Your task to perform on an android device: open app "Airtel Thanks" (install if not already installed) and enter user name: "acclaimed@inbox.com" and password: "dichotomize" Image 0: 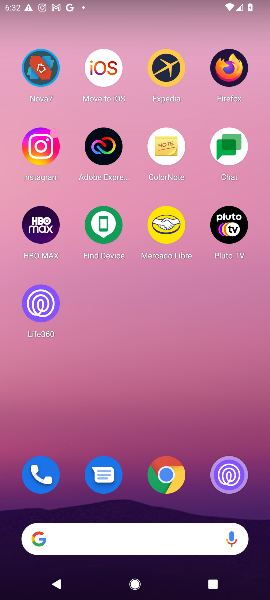
Step 0: drag from (138, 526) to (175, 135)
Your task to perform on an android device: open app "Airtel Thanks" (install if not already installed) and enter user name: "acclaimed@inbox.com" and password: "dichotomize" Image 1: 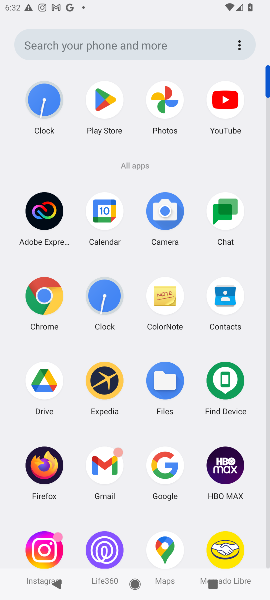
Step 1: click (107, 97)
Your task to perform on an android device: open app "Airtel Thanks" (install if not already installed) and enter user name: "acclaimed@inbox.com" and password: "dichotomize" Image 2: 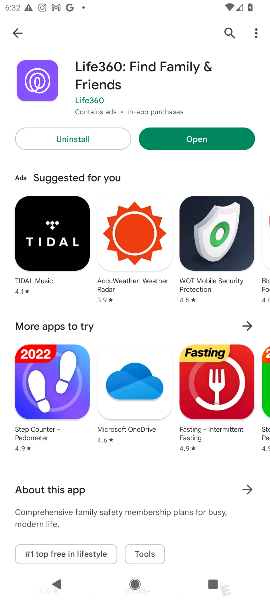
Step 2: click (15, 34)
Your task to perform on an android device: open app "Airtel Thanks" (install if not already installed) and enter user name: "acclaimed@inbox.com" and password: "dichotomize" Image 3: 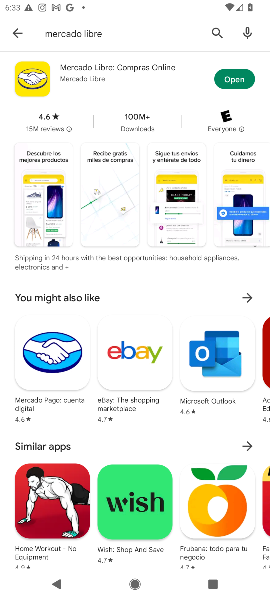
Step 3: click (219, 32)
Your task to perform on an android device: open app "Airtel Thanks" (install if not already installed) and enter user name: "acclaimed@inbox.com" and password: "dichotomize" Image 4: 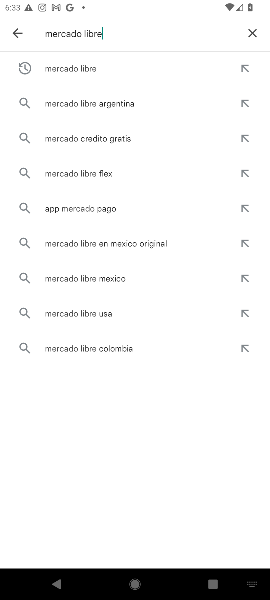
Step 4: click (253, 33)
Your task to perform on an android device: open app "Airtel Thanks" (install if not already installed) and enter user name: "acclaimed@inbox.com" and password: "dichotomize" Image 5: 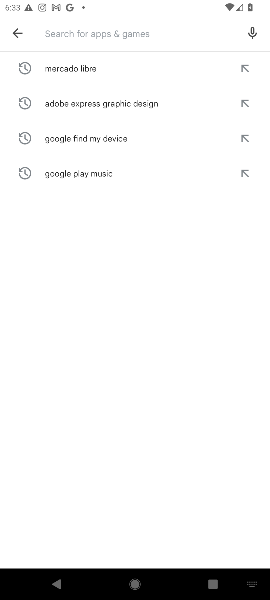
Step 5: click (118, 36)
Your task to perform on an android device: open app "Airtel Thanks" (install if not already installed) and enter user name: "acclaimed@inbox.com" and password: "dichotomize" Image 6: 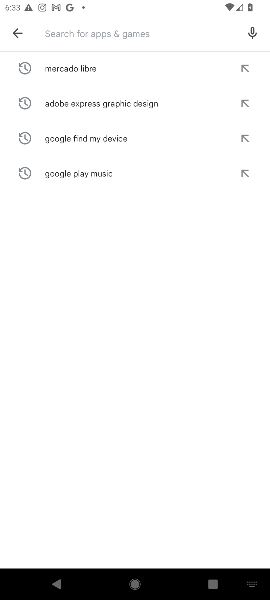
Step 6: click (69, 32)
Your task to perform on an android device: open app "Airtel Thanks" (install if not already installed) and enter user name: "acclaimed@inbox.com" and password: "dichotomize" Image 7: 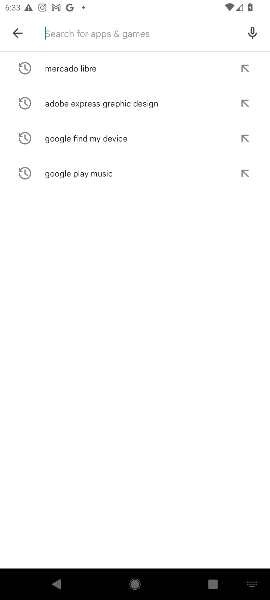
Step 7: type "Airtel Thanks"
Your task to perform on an android device: open app "Airtel Thanks" (install if not already installed) and enter user name: "acclaimed@inbox.com" and password: "dichotomize" Image 8: 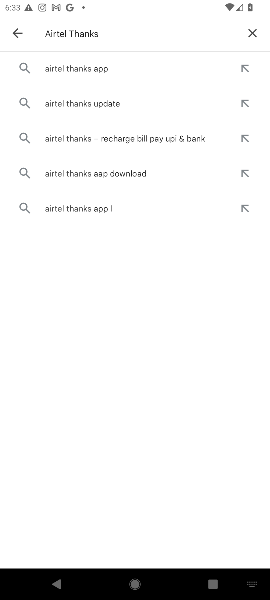
Step 8: click (88, 70)
Your task to perform on an android device: open app "Airtel Thanks" (install if not already installed) and enter user name: "acclaimed@inbox.com" and password: "dichotomize" Image 9: 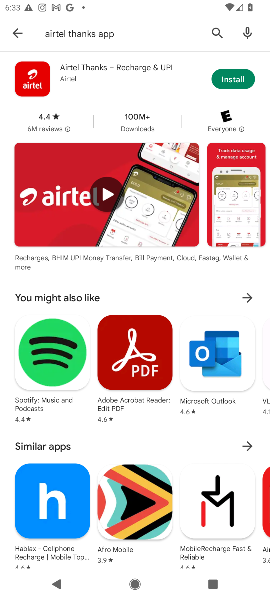
Step 9: click (243, 75)
Your task to perform on an android device: open app "Airtel Thanks" (install if not already installed) and enter user name: "acclaimed@inbox.com" and password: "dichotomize" Image 10: 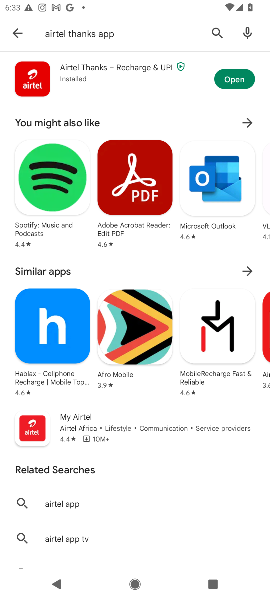
Step 10: click (242, 82)
Your task to perform on an android device: open app "Airtel Thanks" (install if not already installed) and enter user name: "acclaimed@inbox.com" and password: "dichotomize" Image 11: 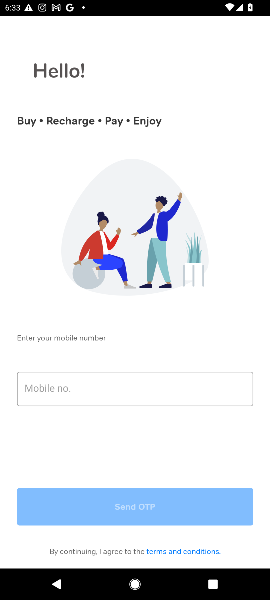
Step 11: task complete